Your task to perform on an android device: turn on javascript in the chrome app Image 0: 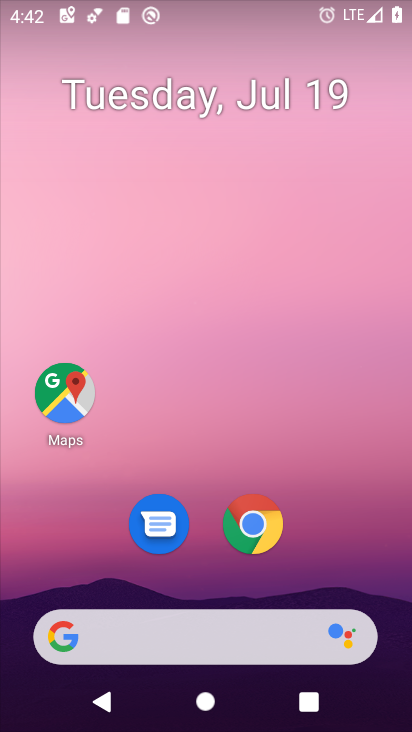
Step 0: click (263, 522)
Your task to perform on an android device: turn on javascript in the chrome app Image 1: 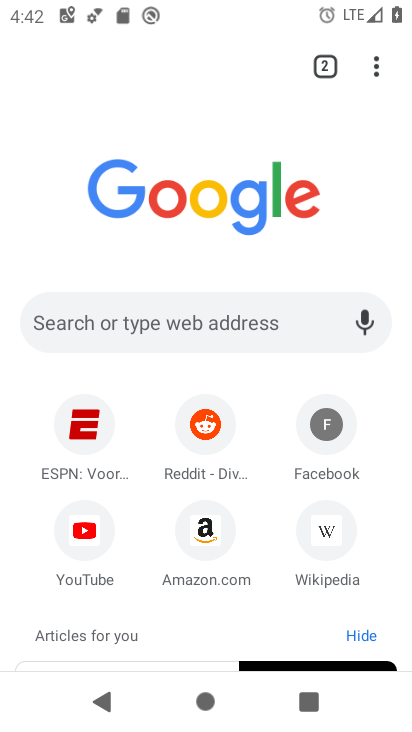
Step 1: click (376, 71)
Your task to perform on an android device: turn on javascript in the chrome app Image 2: 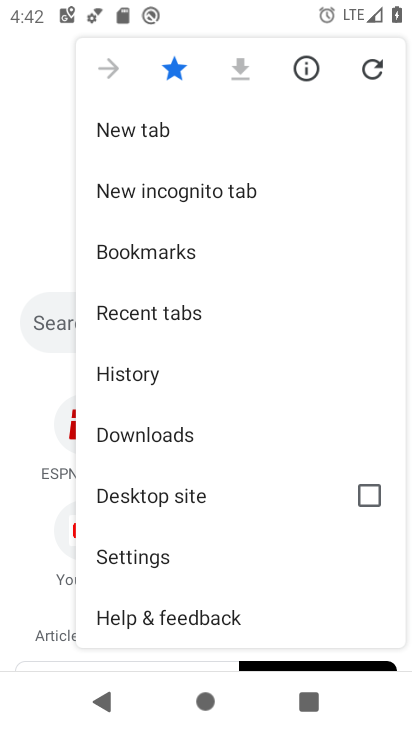
Step 2: click (194, 558)
Your task to perform on an android device: turn on javascript in the chrome app Image 3: 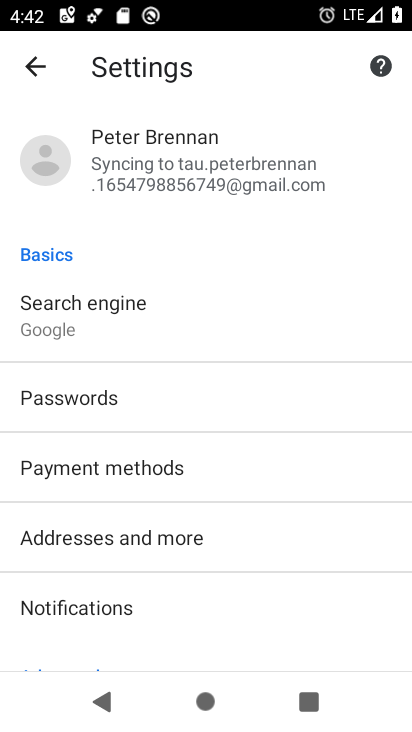
Step 3: drag from (245, 535) to (235, 258)
Your task to perform on an android device: turn on javascript in the chrome app Image 4: 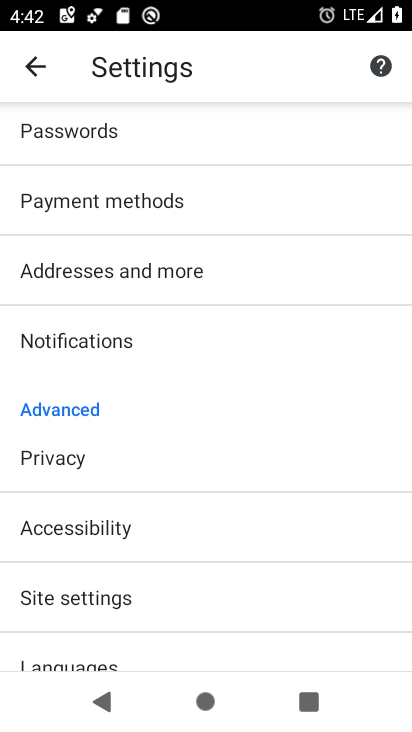
Step 4: click (110, 602)
Your task to perform on an android device: turn on javascript in the chrome app Image 5: 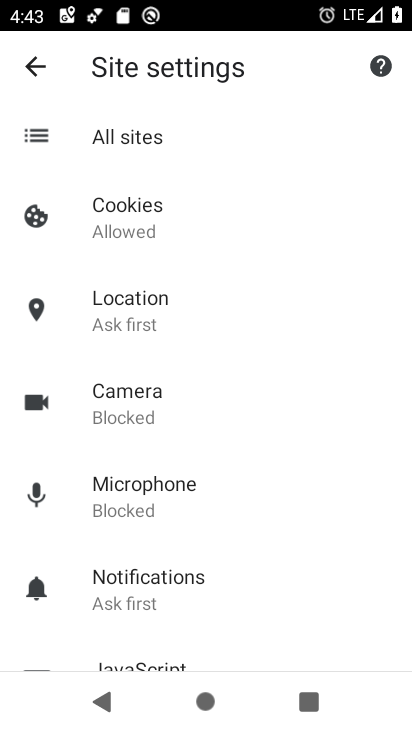
Step 5: drag from (259, 493) to (252, 299)
Your task to perform on an android device: turn on javascript in the chrome app Image 6: 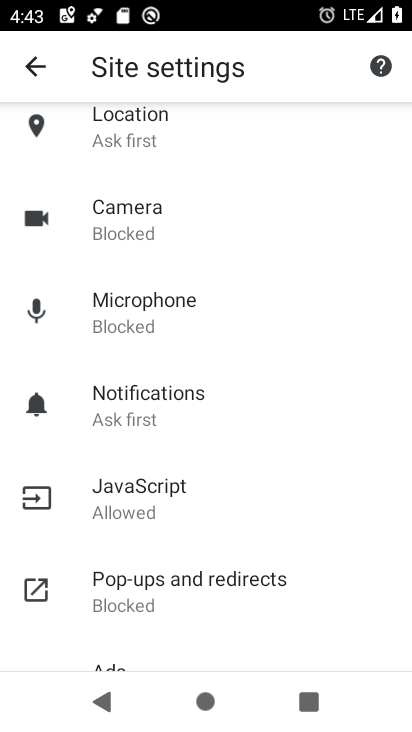
Step 6: click (186, 500)
Your task to perform on an android device: turn on javascript in the chrome app Image 7: 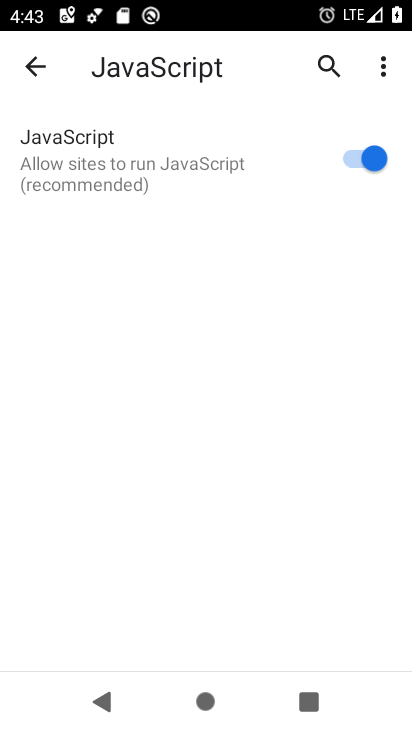
Step 7: task complete